Your task to perform on an android device: find snoozed emails in the gmail app Image 0: 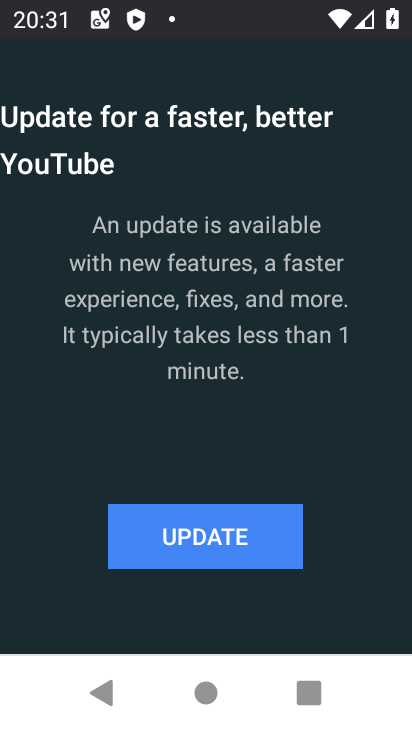
Step 0: press home button
Your task to perform on an android device: find snoozed emails in the gmail app Image 1: 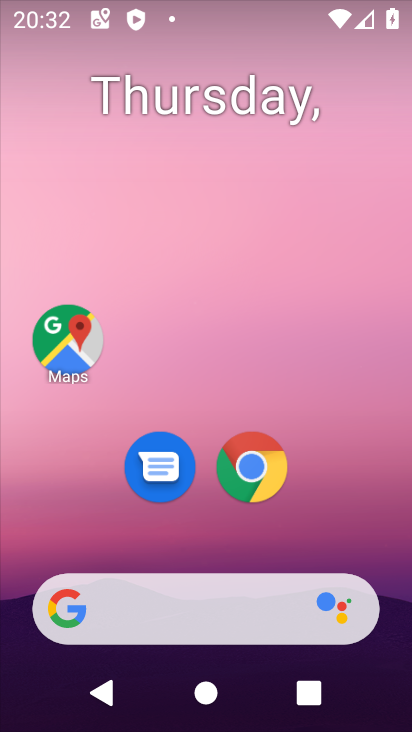
Step 1: drag from (326, 500) to (391, 151)
Your task to perform on an android device: find snoozed emails in the gmail app Image 2: 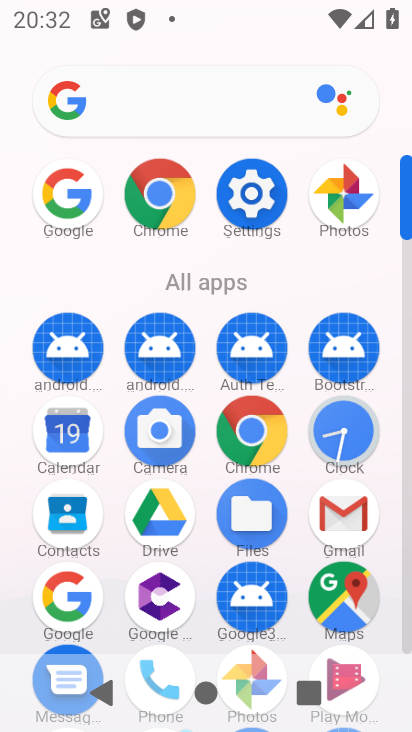
Step 2: click (337, 410)
Your task to perform on an android device: find snoozed emails in the gmail app Image 3: 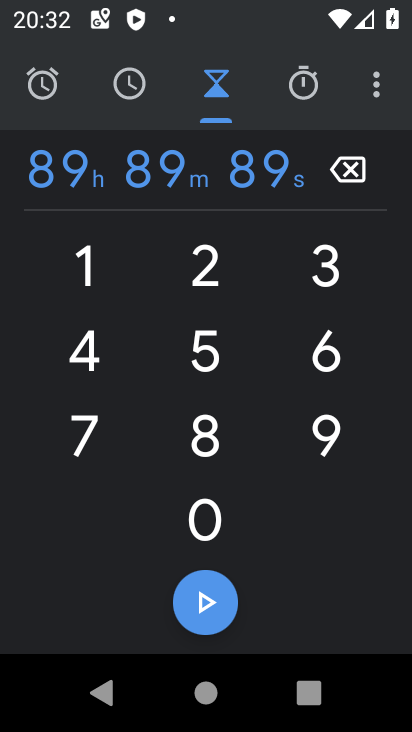
Step 3: press home button
Your task to perform on an android device: find snoozed emails in the gmail app Image 4: 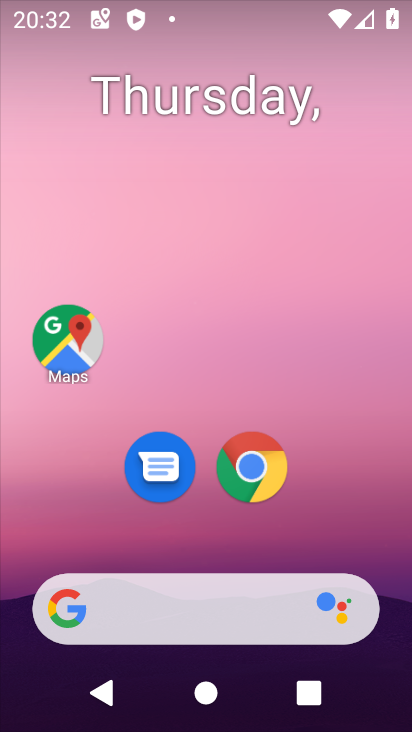
Step 4: drag from (343, 522) to (404, 226)
Your task to perform on an android device: find snoozed emails in the gmail app Image 5: 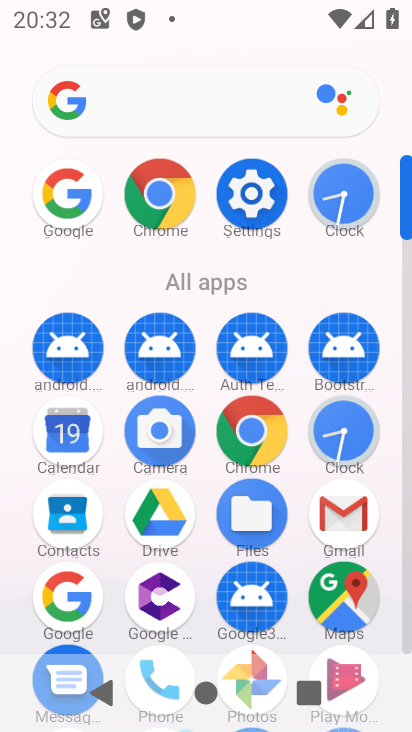
Step 5: click (344, 500)
Your task to perform on an android device: find snoozed emails in the gmail app Image 6: 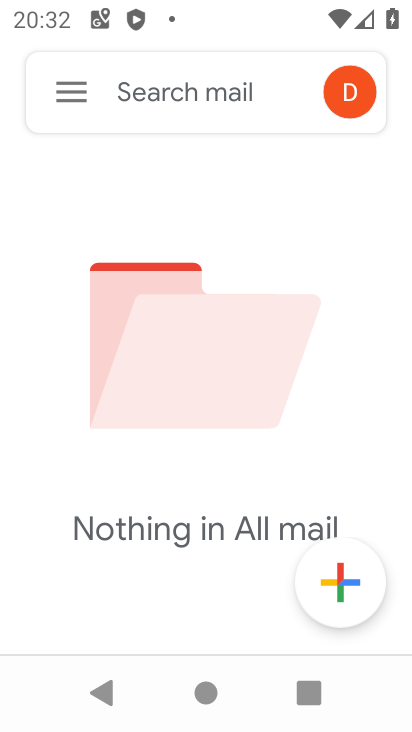
Step 6: click (81, 96)
Your task to perform on an android device: find snoozed emails in the gmail app Image 7: 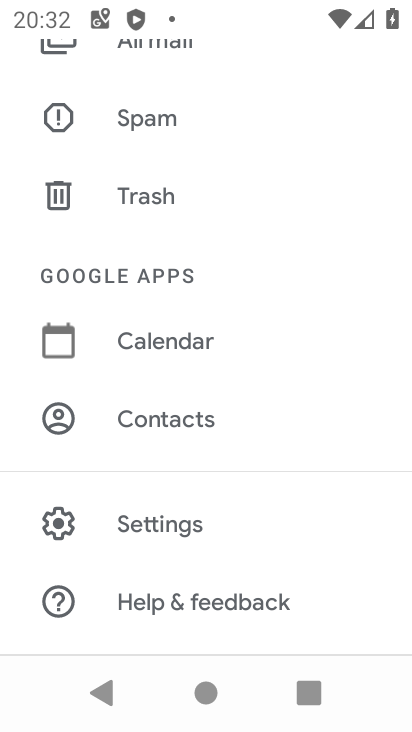
Step 7: drag from (259, 238) to (224, 515)
Your task to perform on an android device: find snoozed emails in the gmail app Image 8: 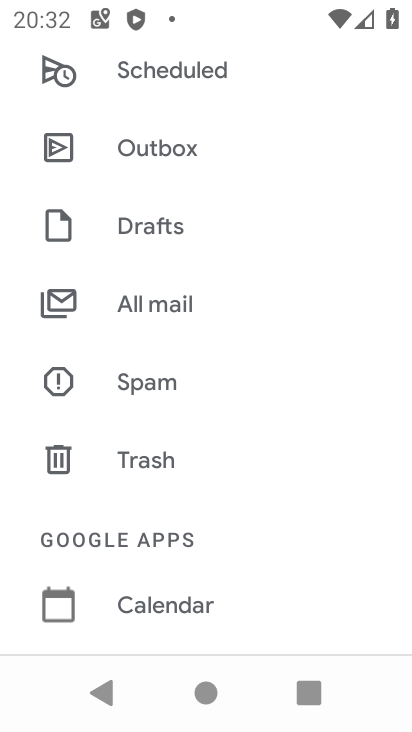
Step 8: drag from (199, 156) to (190, 531)
Your task to perform on an android device: find snoozed emails in the gmail app Image 9: 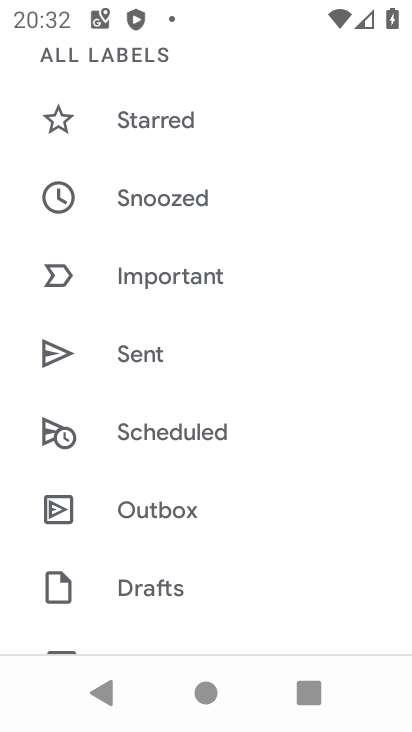
Step 9: click (161, 201)
Your task to perform on an android device: find snoozed emails in the gmail app Image 10: 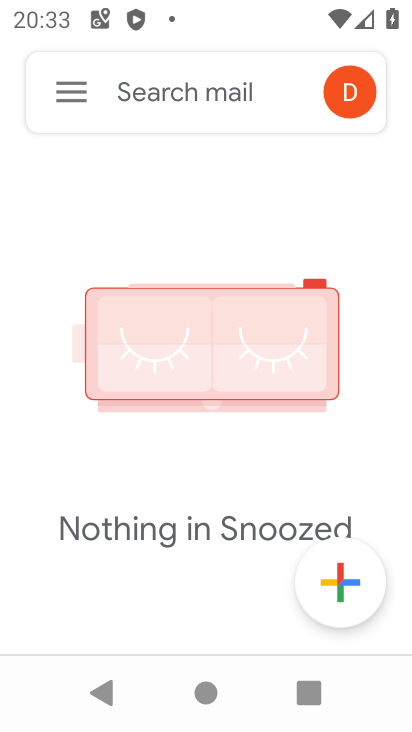
Step 10: task complete